Your task to perform on an android device: set the stopwatch Image 0: 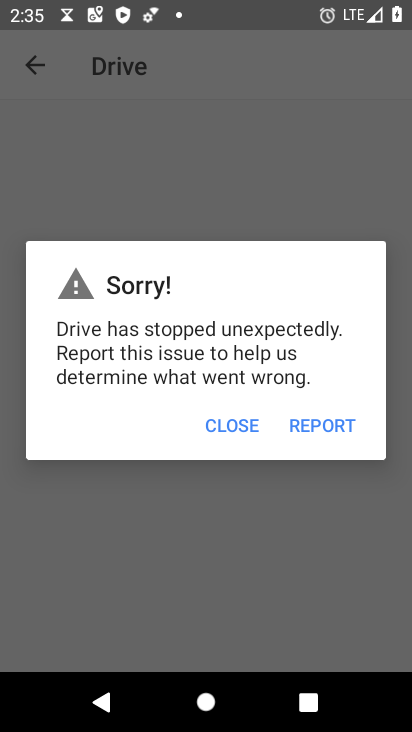
Step 0: press home button
Your task to perform on an android device: set the stopwatch Image 1: 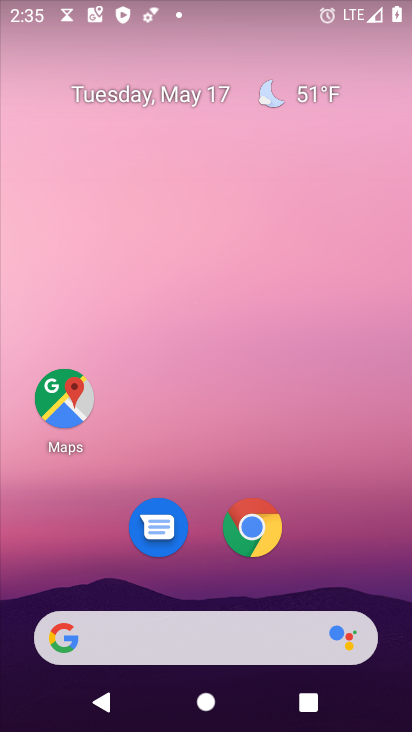
Step 1: drag from (310, 574) to (197, 118)
Your task to perform on an android device: set the stopwatch Image 2: 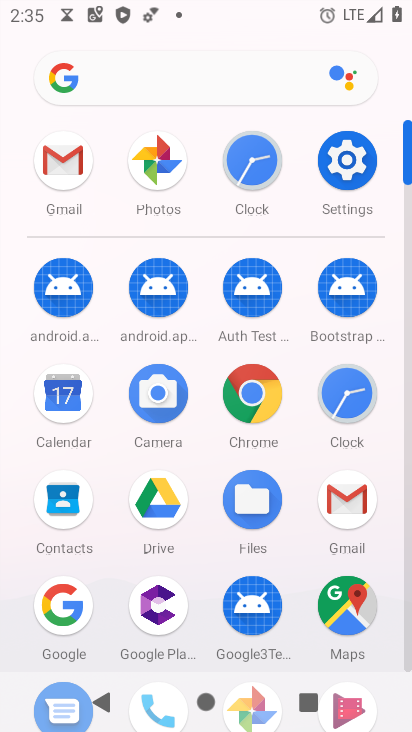
Step 2: click (255, 163)
Your task to perform on an android device: set the stopwatch Image 3: 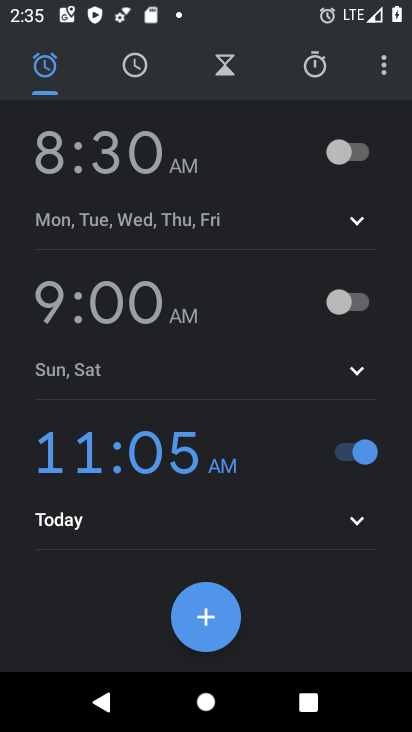
Step 3: click (317, 72)
Your task to perform on an android device: set the stopwatch Image 4: 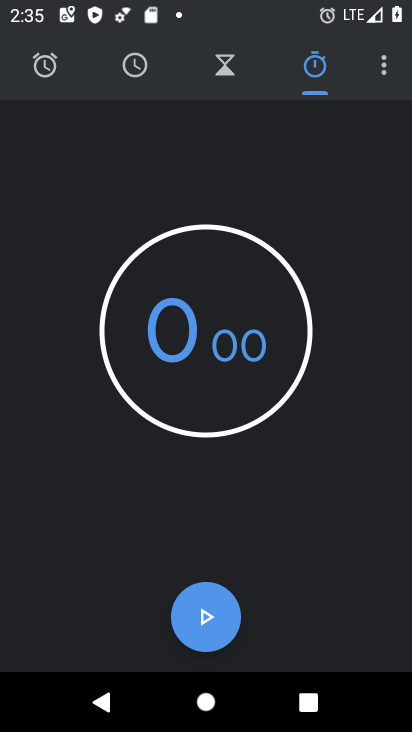
Step 4: click (204, 610)
Your task to perform on an android device: set the stopwatch Image 5: 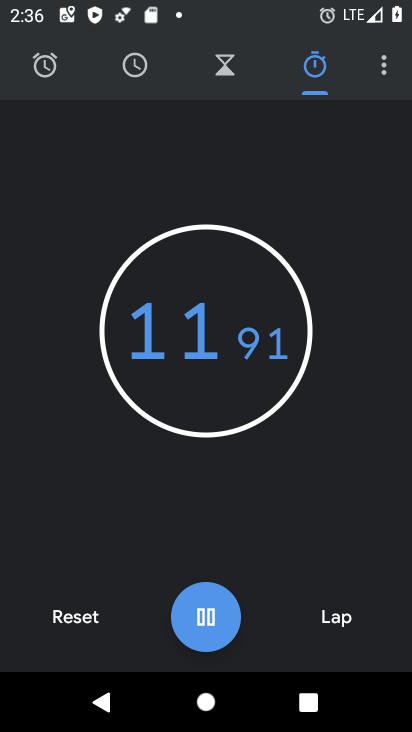
Step 5: click (209, 616)
Your task to perform on an android device: set the stopwatch Image 6: 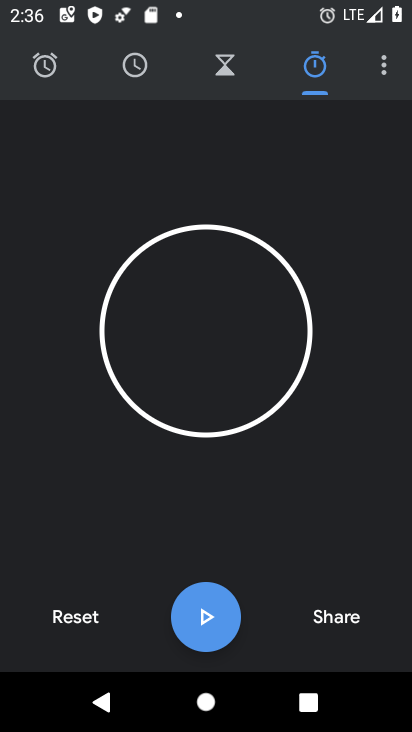
Step 6: task complete